Your task to perform on an android device: Search for Italian restaurants on Maps Image 0: 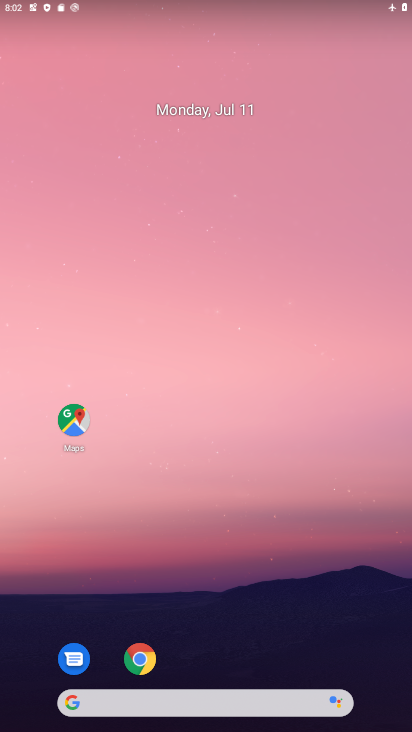
Step 0: drag from (194, 640) to (235, 173)
Your task to perform on an android device: Search for Italian restaurants on Maps Image 1: 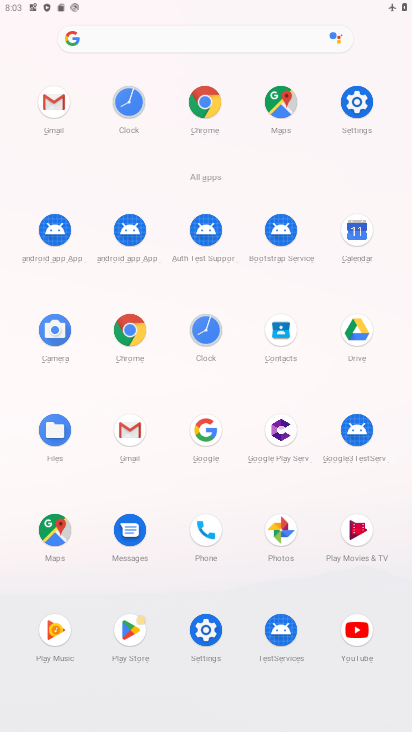
Step 1: click (284, 94)
Your task to perform on an android device: Search for Italian restaurants on Maps Image 2: 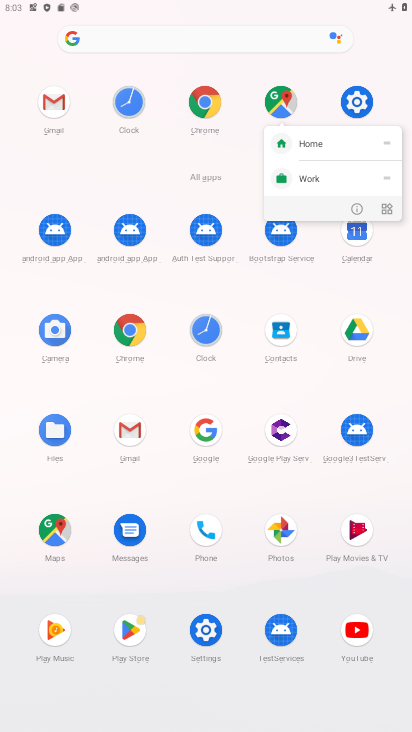
Step 2: click (355, 208)
Your task to perform on an android device: Search for Italian restaurants on Maps Image 3: 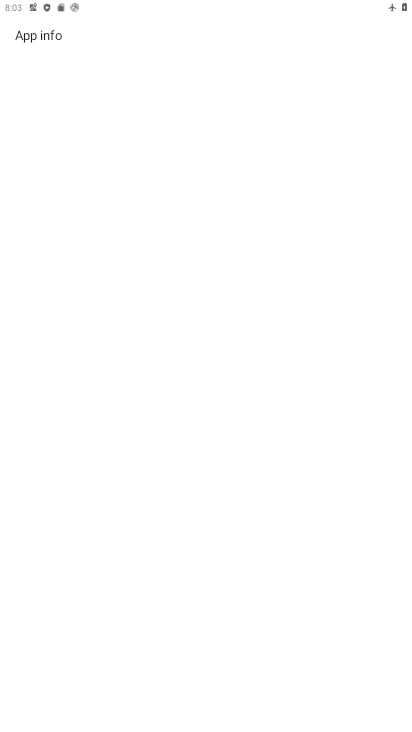
Step 3: drag from (185, 563) to (263, 216)
Your task to perform on an android device: Search for Italian restaurants on Maps Image 4: 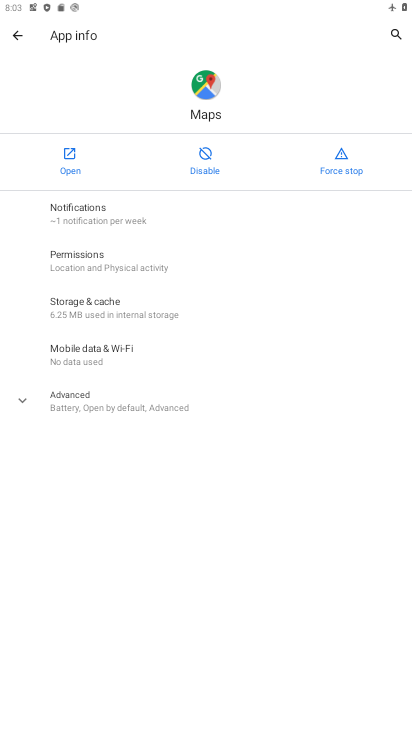
Step 4: click (55, 154)
Your task to perform on an android device: Search for Italian restaurants on Maps Image 5: 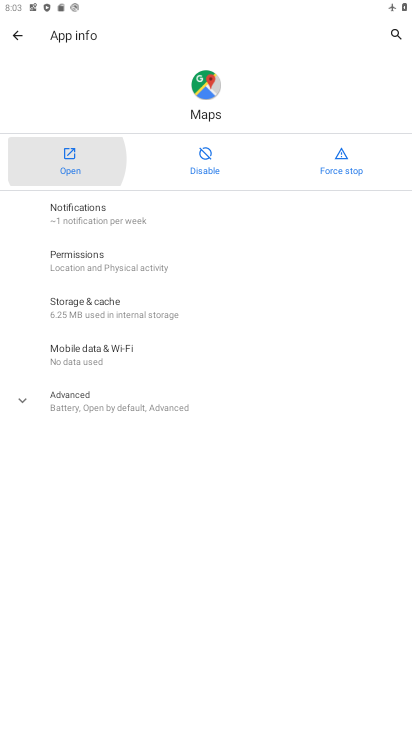
Step 5: click (66, 156)
Your task to perform on an android device: Search for Italian restaurants on Maps Image 6: 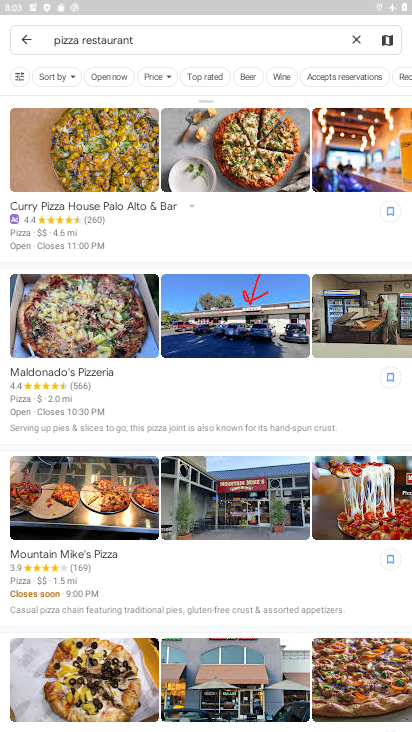
Step 6: click (352, 34)
Your task to perform on an android device: Search for Italian restaurants on Maps Image 7: 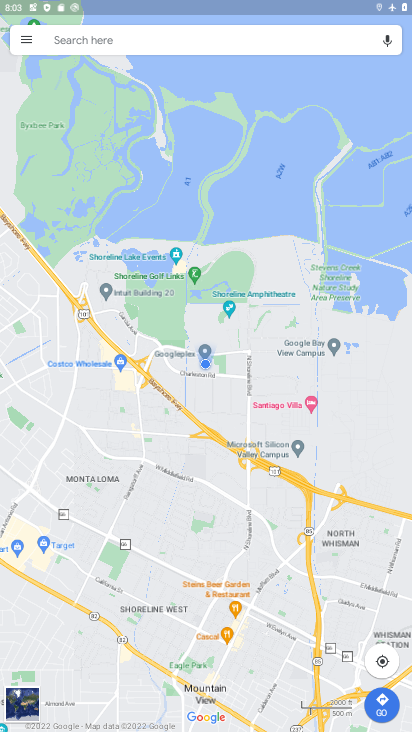
Step 7: click (230, 47)
Your task to perform on an android device: Search for Italian restaurants on Maps Image 8: 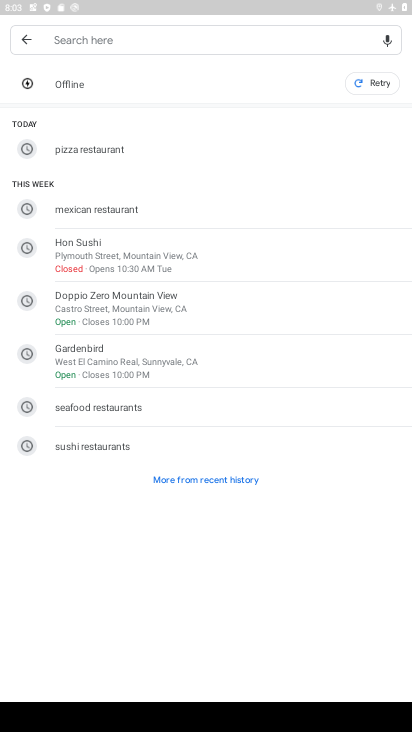
Step 8: type "Italian restaurants"
Your task to perform on an android device: Search for Italian restaurants on Maps Image 9: 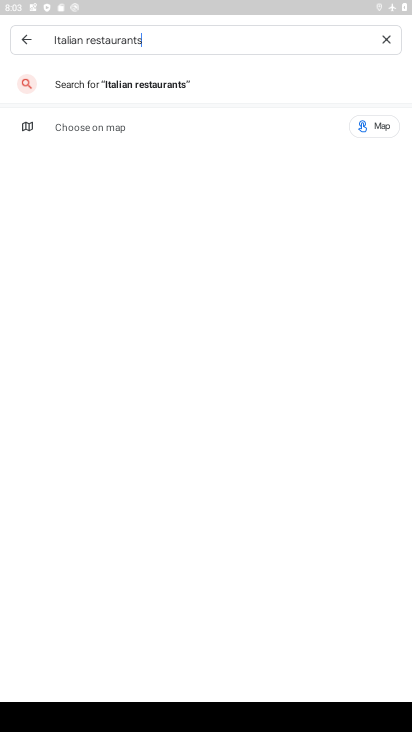
Step 9: type ""
Your task to perform on an android device: Search for Italian restaurants on Maps Image 10: 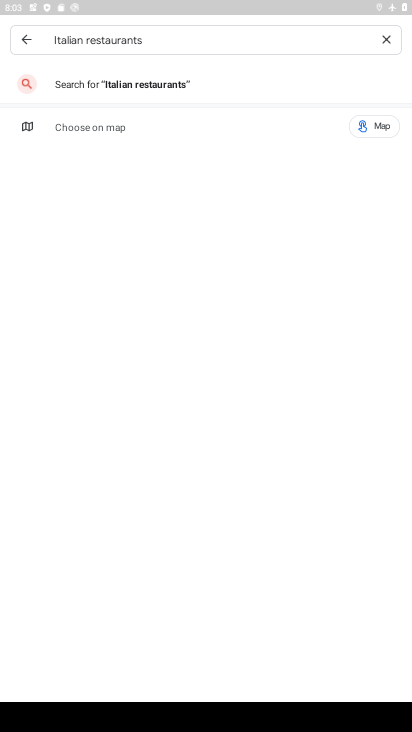
Step 10: click (122, 76)
Your task to perform on an android device: Search for Italian restaurants on Maps Image 11: 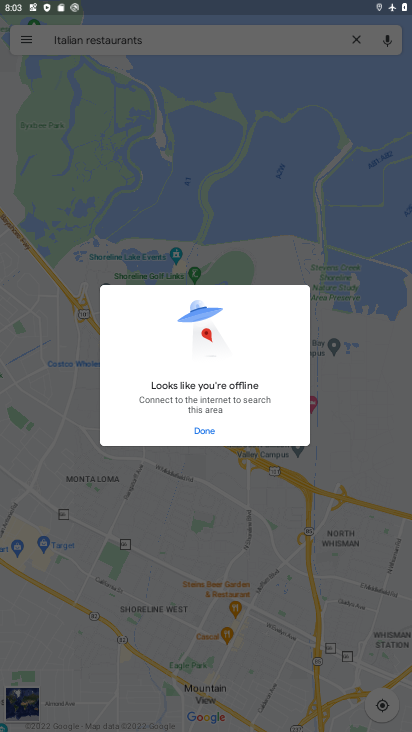
Step 11: task complete